Your task to perform on an android device: Open settings Image 0: 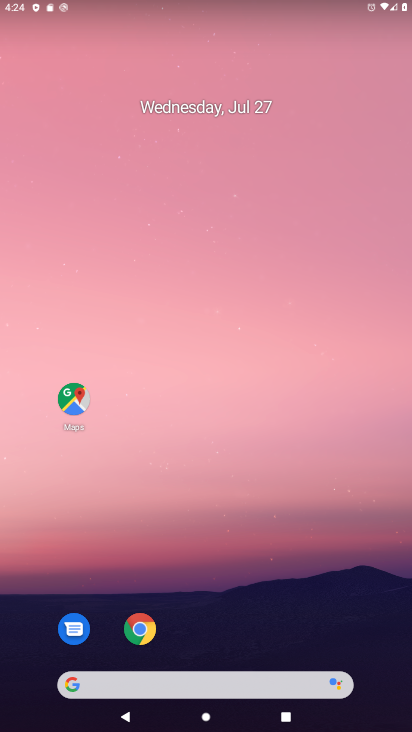
Step 0: drag from (245, 574) to (313, 69)
Your task to perform on an android device: Open settings Image 1: 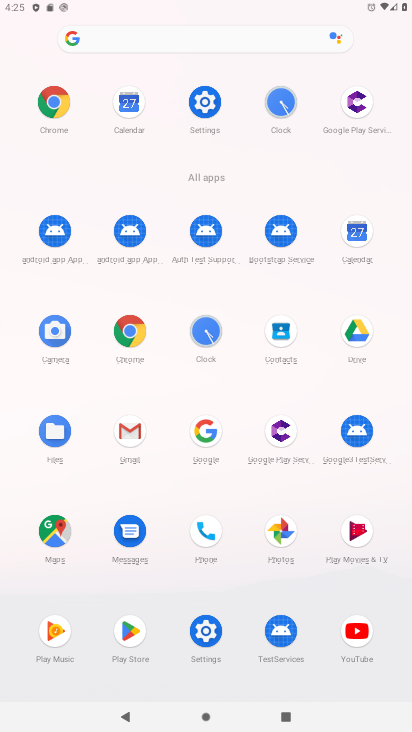
Step 1: click (202, 101)
Your task to perform on an android device: Open settings Image 2: 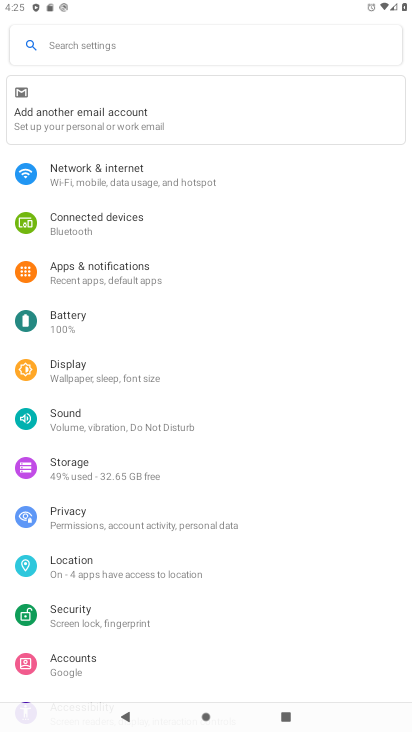
Step 2: task complete